Your task to perform on an android device: turn on the 24-hour format for clock Image 0: 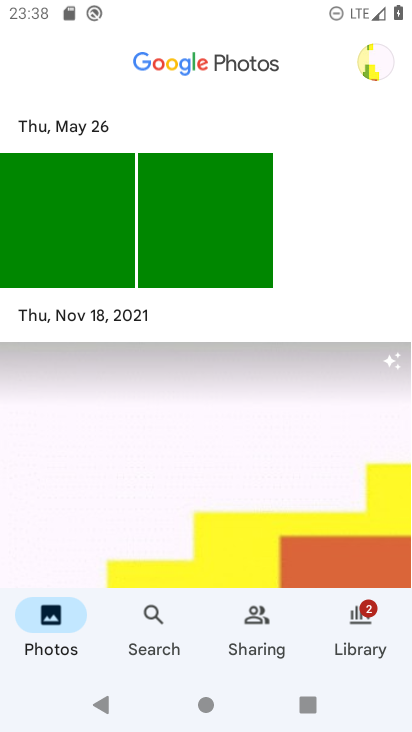
Step 0: press home button
Your task to perform on an android device: turn on the 24-hour format for clock Image 1: 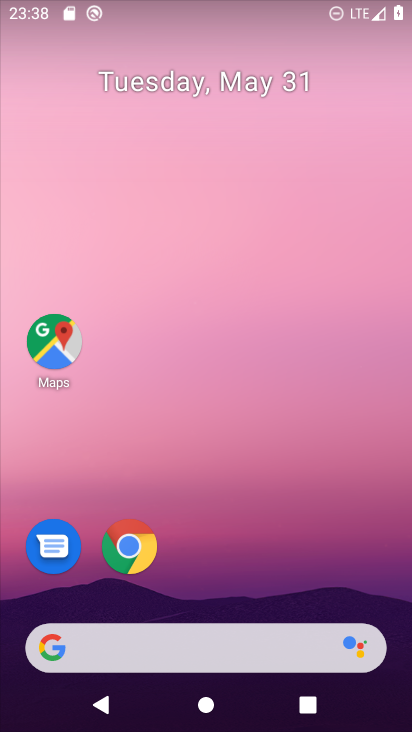
Step 1: drag from (393, 710) to (301, 231)
Your task to perform on an android device: turn on the 24-hour format for clock Image 2: 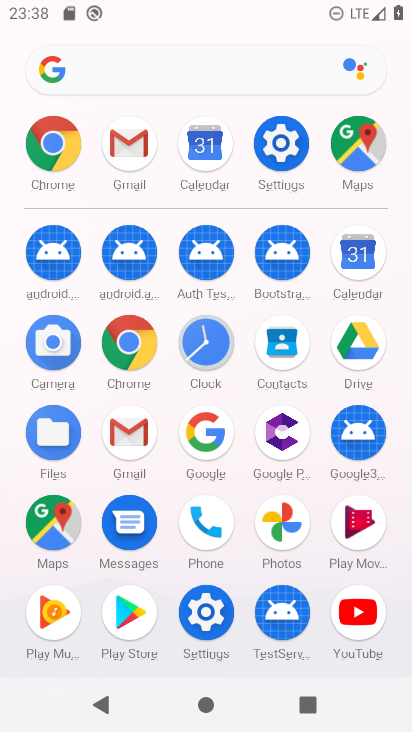
Step 2: click (270, 137)
Your task to perform on an android device: turn on the 24-hour format for clock Image 3: 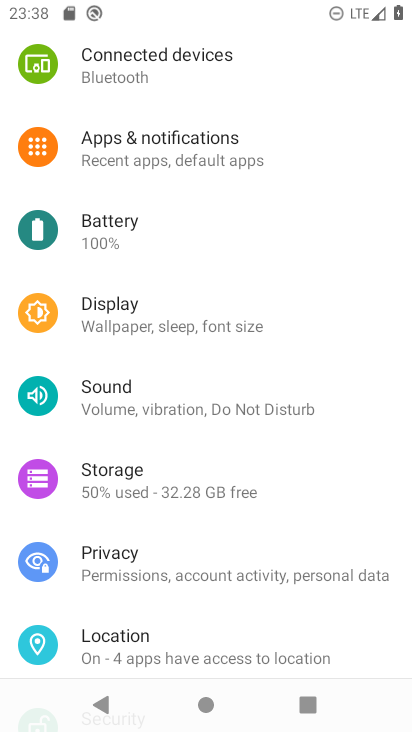
Step 3: drag from (324, 625) to (304, 314)
Your task to perform on an android device: turn on the 24-hour format for clock Image 4: 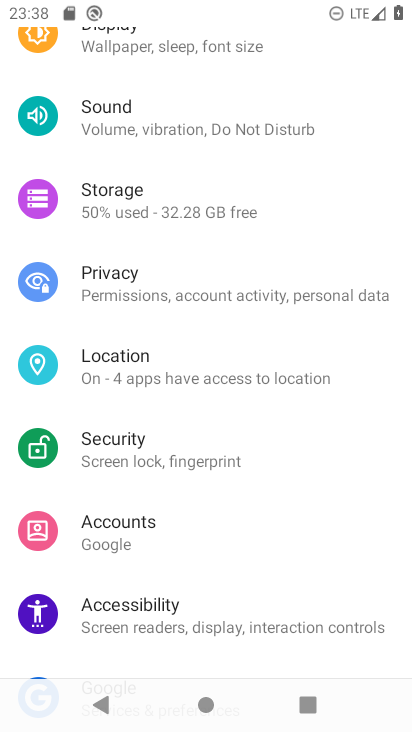
Step 4: press home button
Your task to perform on an android device: turn on the 24-hour format for clock Image 5: 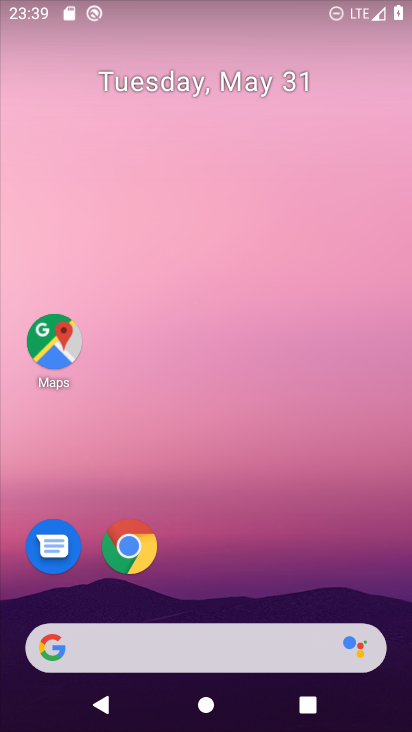
Step 5: drag from (388, 654) to (342, 193)
Your task to perform on an android device: turn on the 24-hour format for clock Image 6: 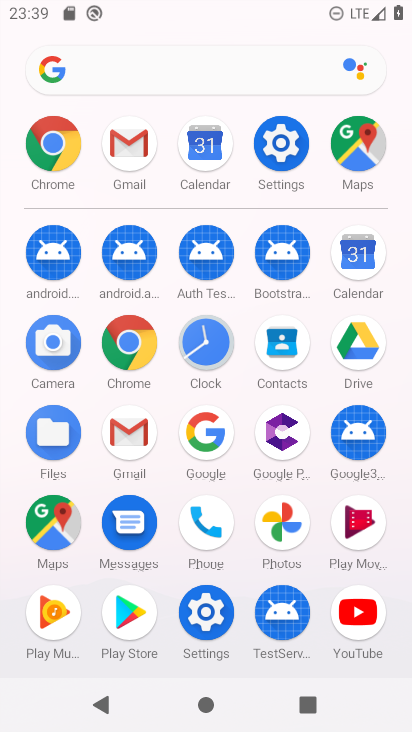
Step 6: click (217, 341)
Your task to perform on an android device: turn on the 24-hour format for clock Image 7: 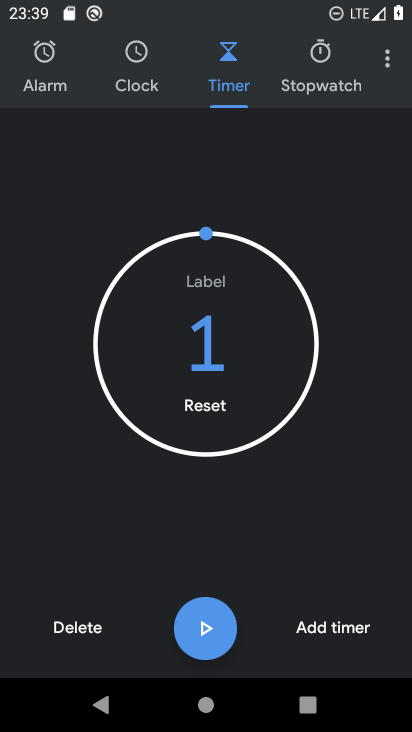
Step 7: click (386, 56)
Your task to perform on an android device: turn on the 24-hour format for clock Image 8: 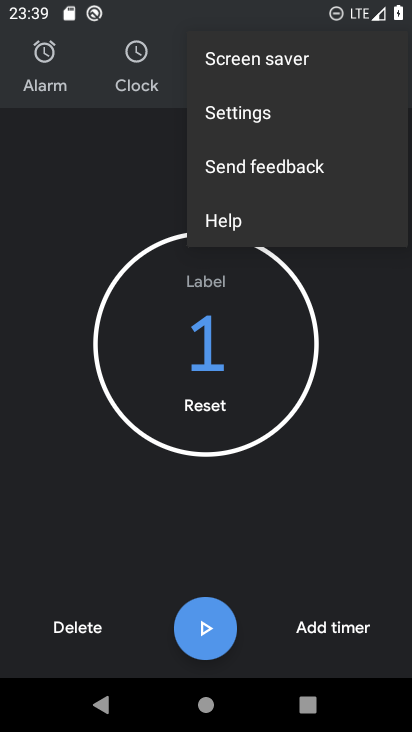
Step 8: click (237, 115)
Your task to perform on an android device: turn on the 24-hour format for clock Image 9: 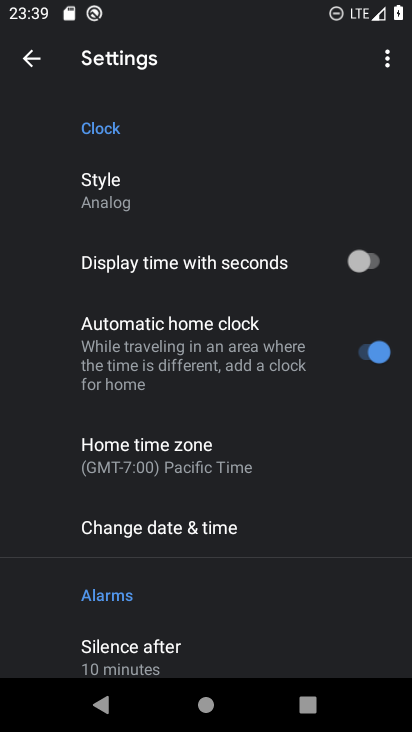
Step 9: click (146, 523)
Your task to perform on an android device: turn on the 24-hour format for clock Image 10: 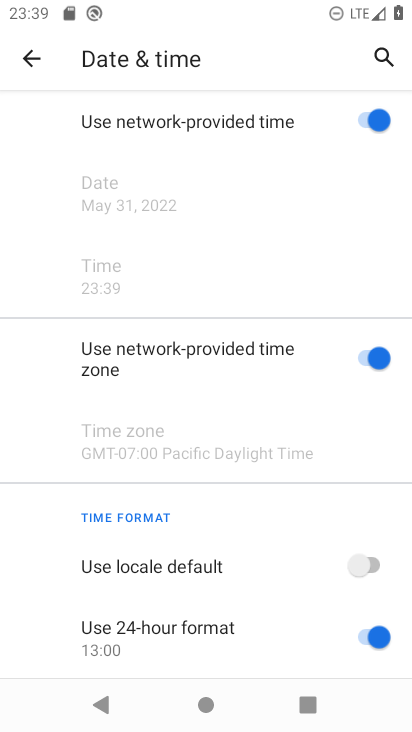
Step 10: task complete